Your task to perform on an android device: uninstall "Skype" Image 0: 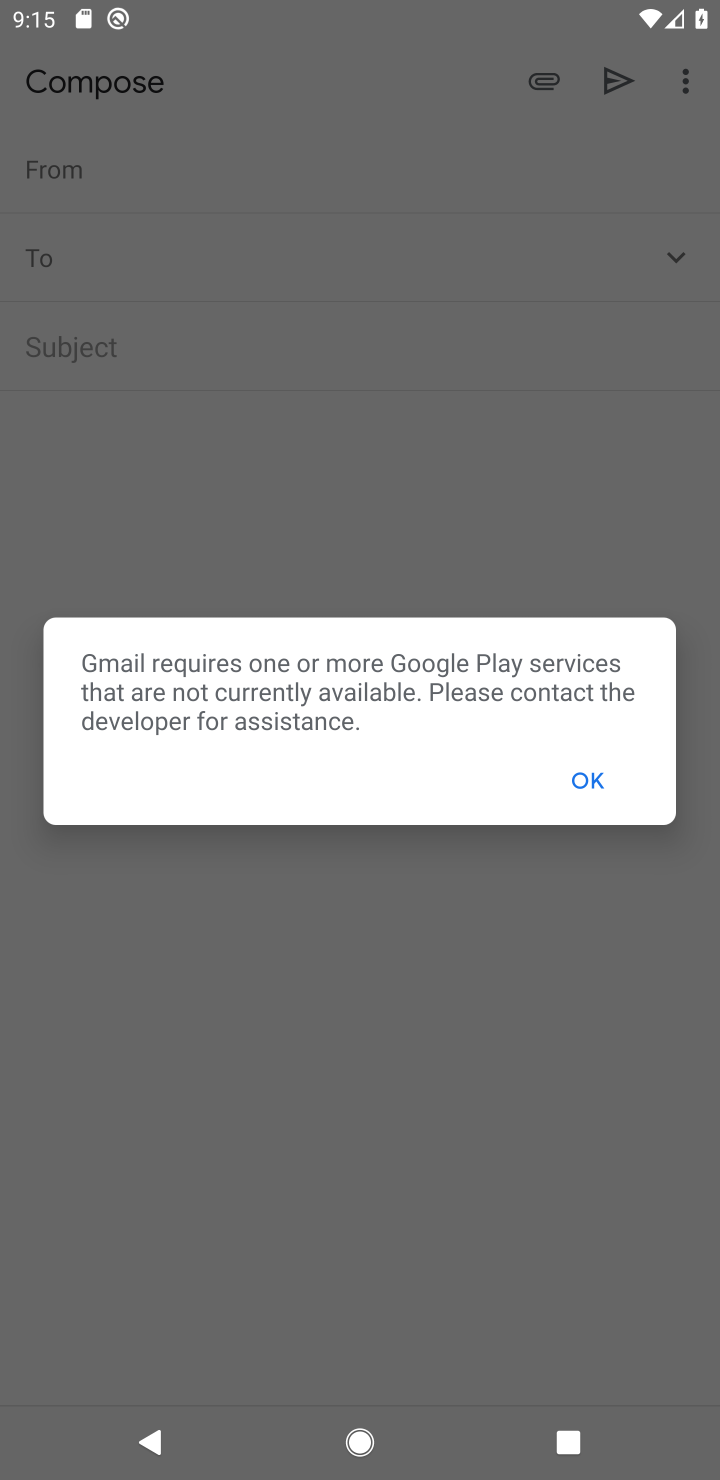
Step 0: press home button
Your task to perform on an android device: uninstall "Skype" Image 1: 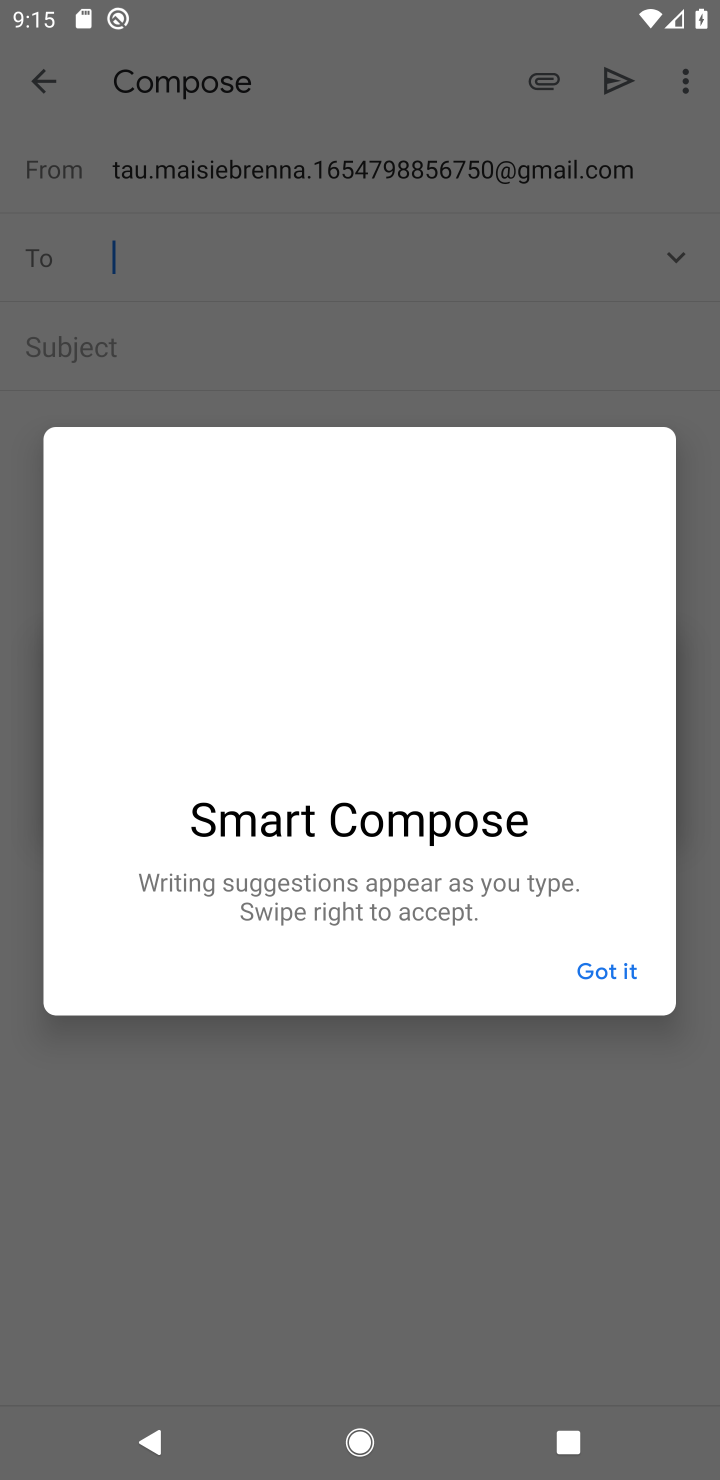
Step 1: press home button
Your task to perform on an android device: uninstall "Skype" Image 2: 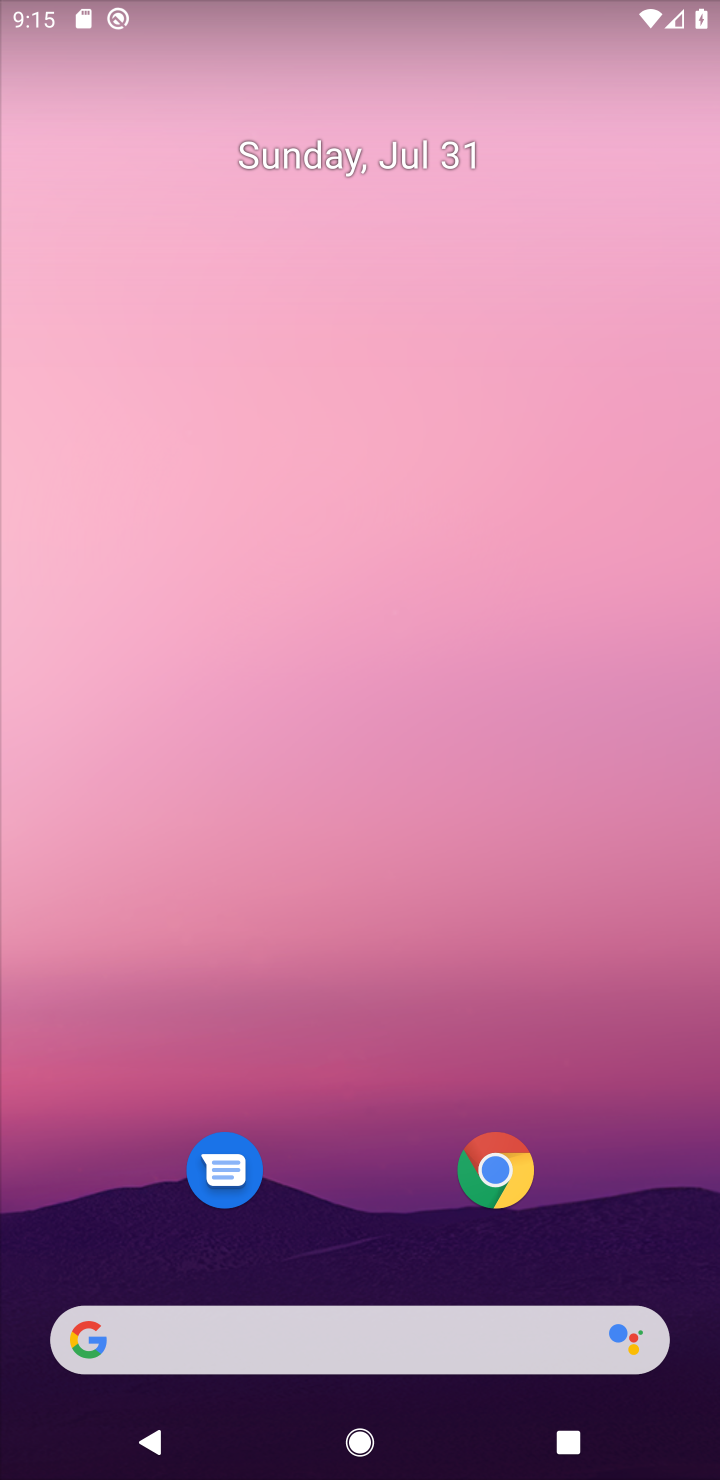
Step 2: drag from (673, 1242) to (244, 139)
Your task to perform on an android device: uninstall "Skype" Image 3: 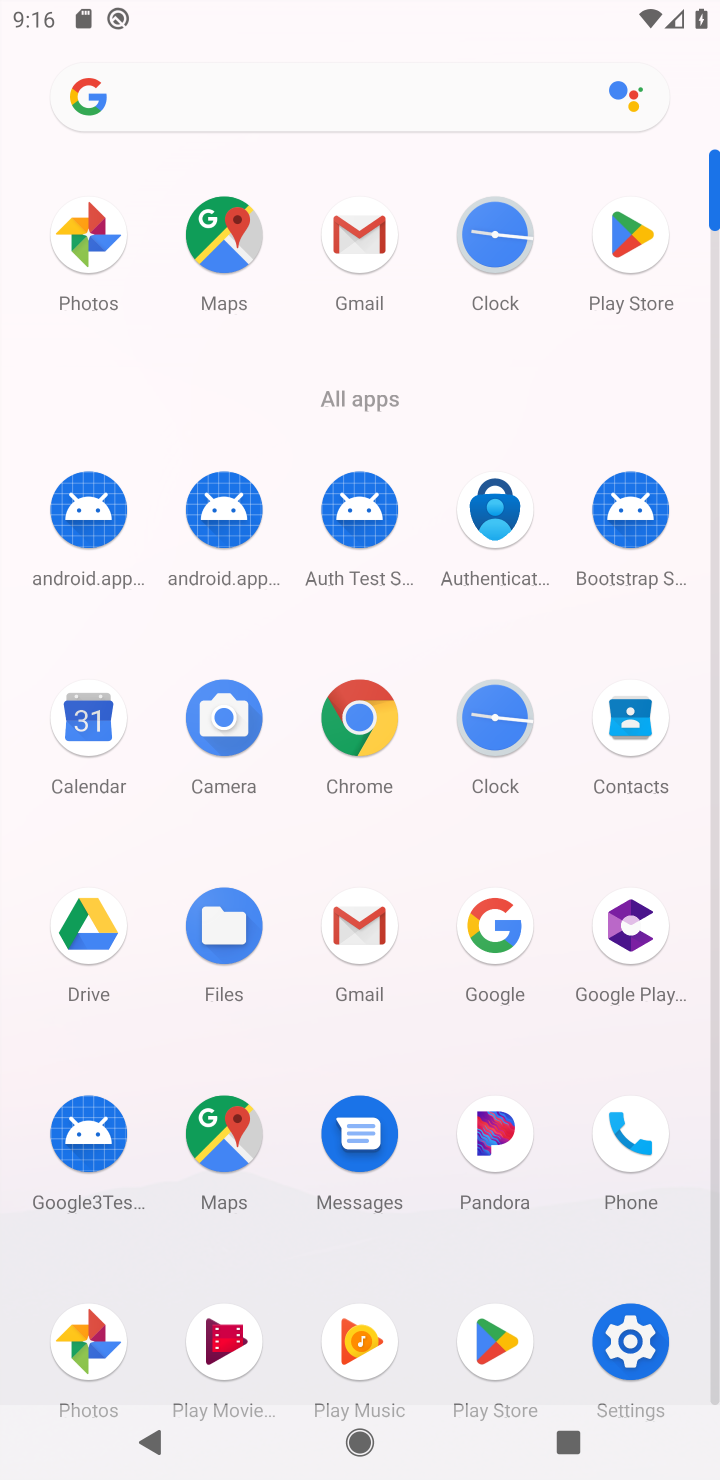
Step 3: click (617, 266)
Your task to perform on an android device: uninstall "Skype" Image 4: 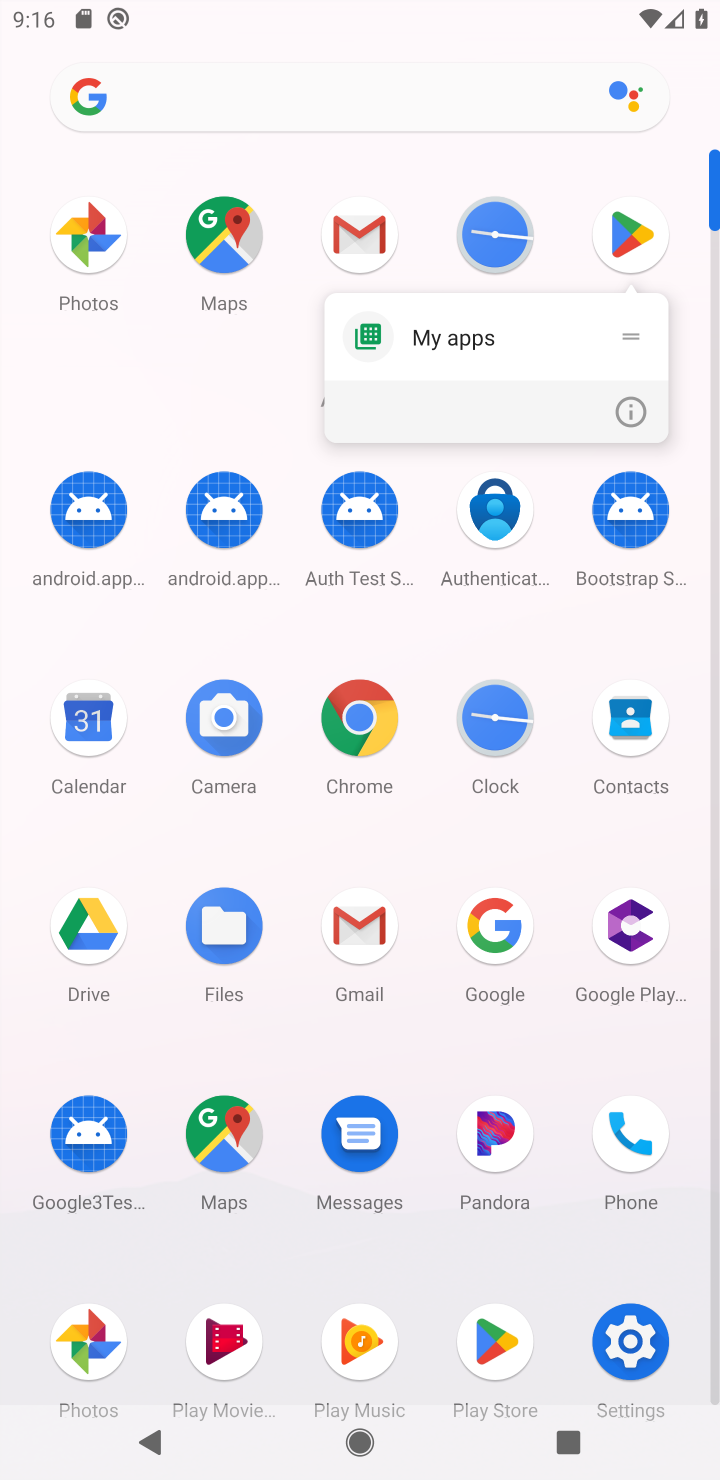
Step 4: click (617, 266)
Your task to perform on an android device: uninstall "Skype" Image 5: 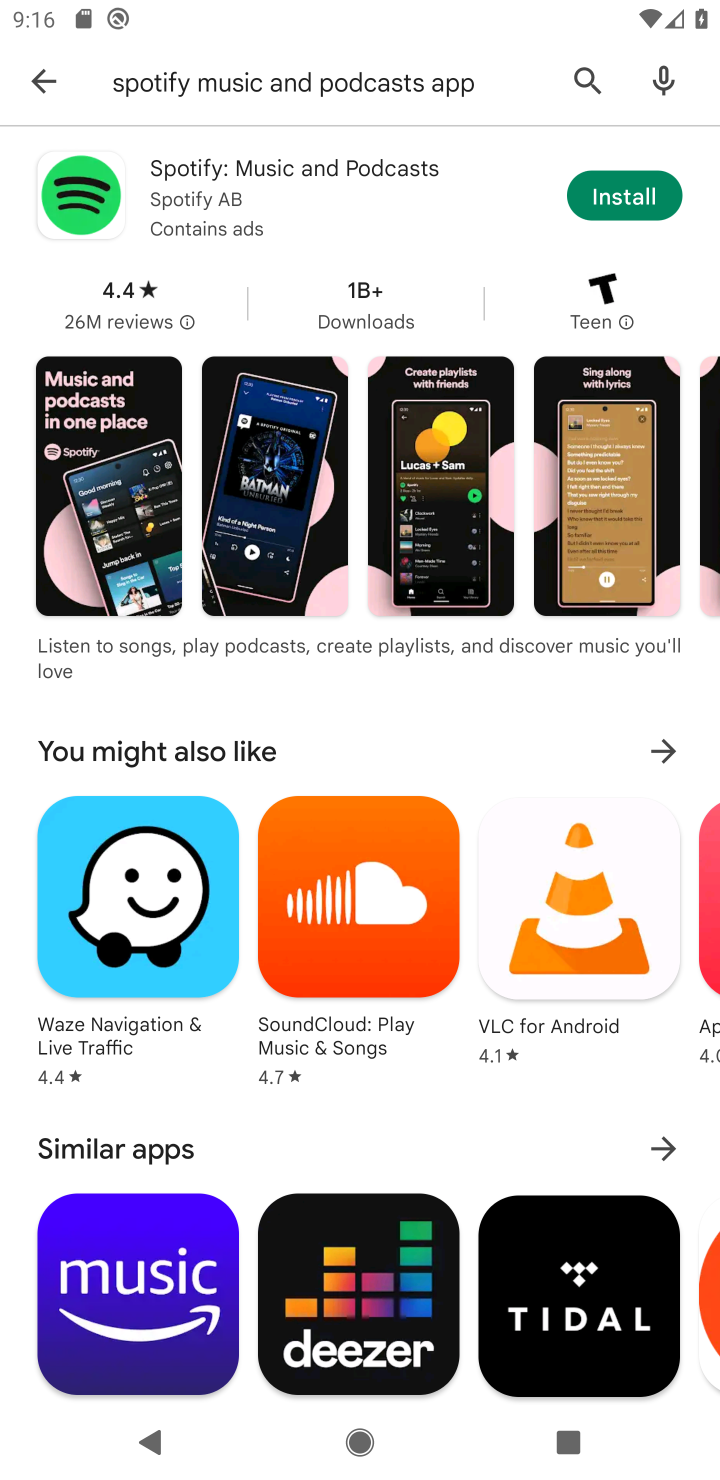
Step 5: press back button
Your task to perform on an android device: uninstall "Skype" Image 6: 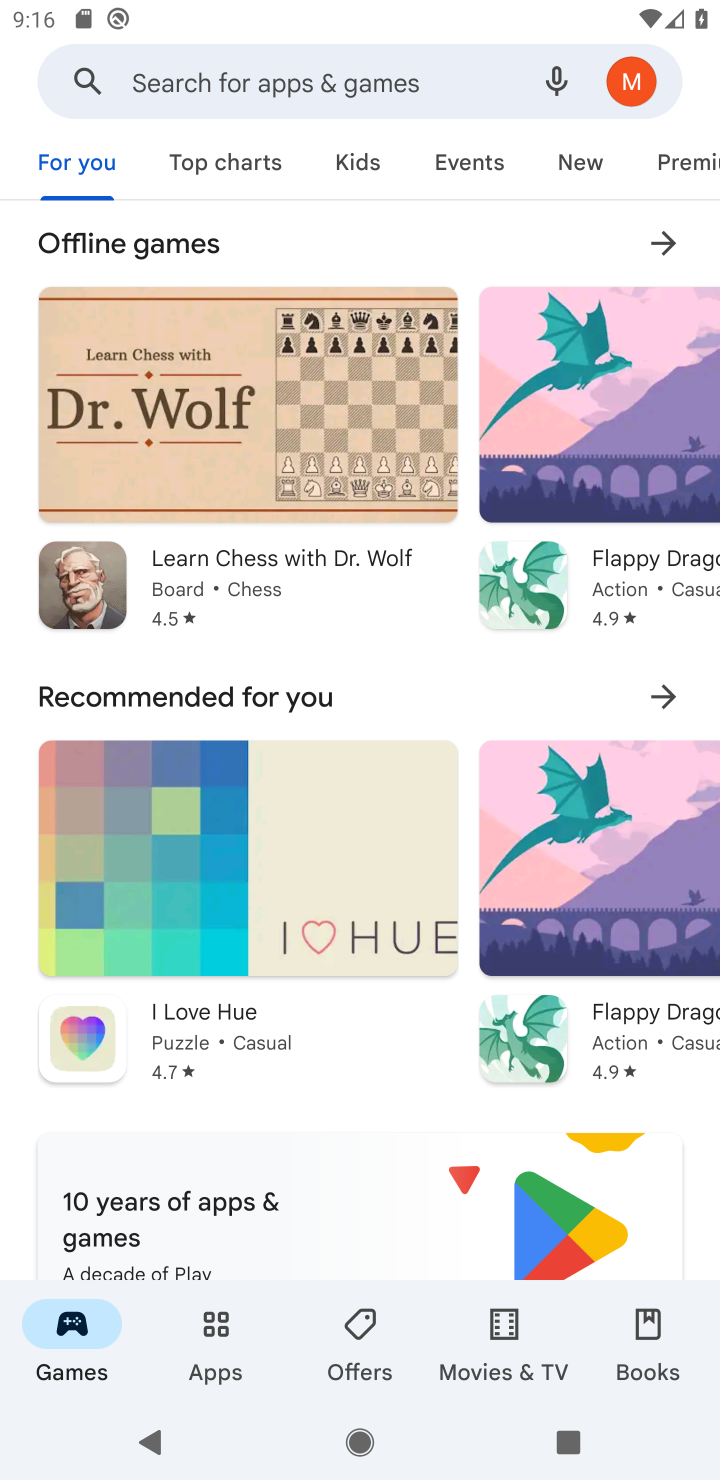
Step 6: click (166, 93)
Your task to perform on an android device: uninstall "Skype" Image 7: 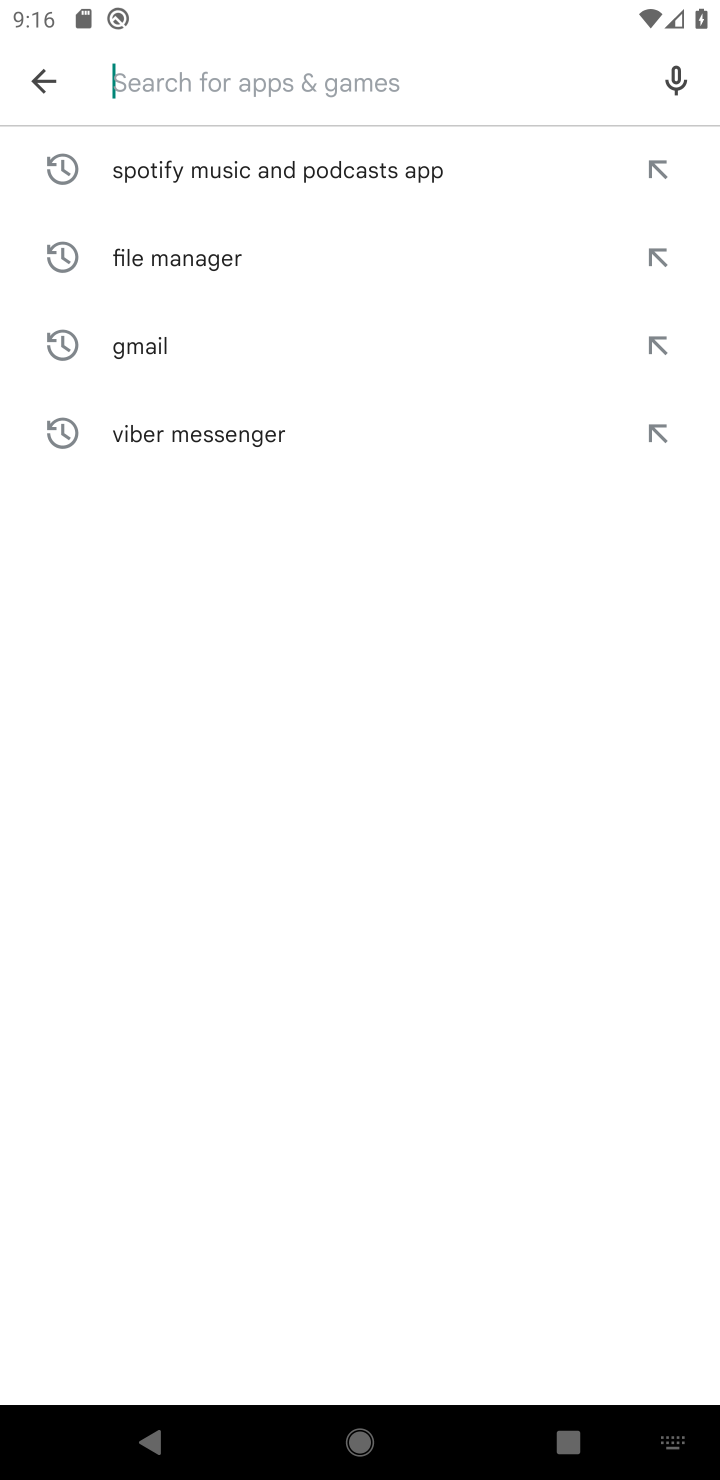
Step 7: type "Skype"
Your task to perform on an android device: uninstall "Skype" Image 8: 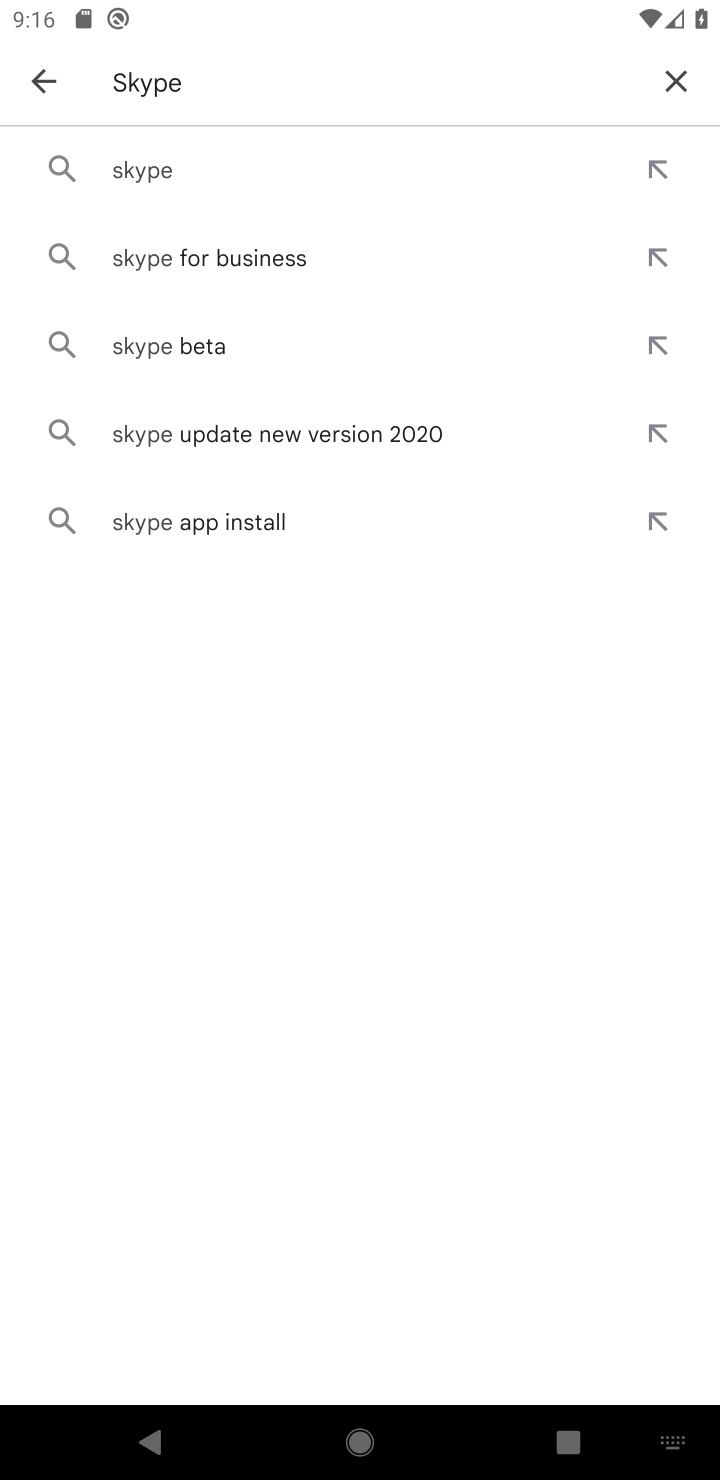
Step 8: click (197, 150)
Your task to perform on an android device: uninstall "Skype" Image 9: 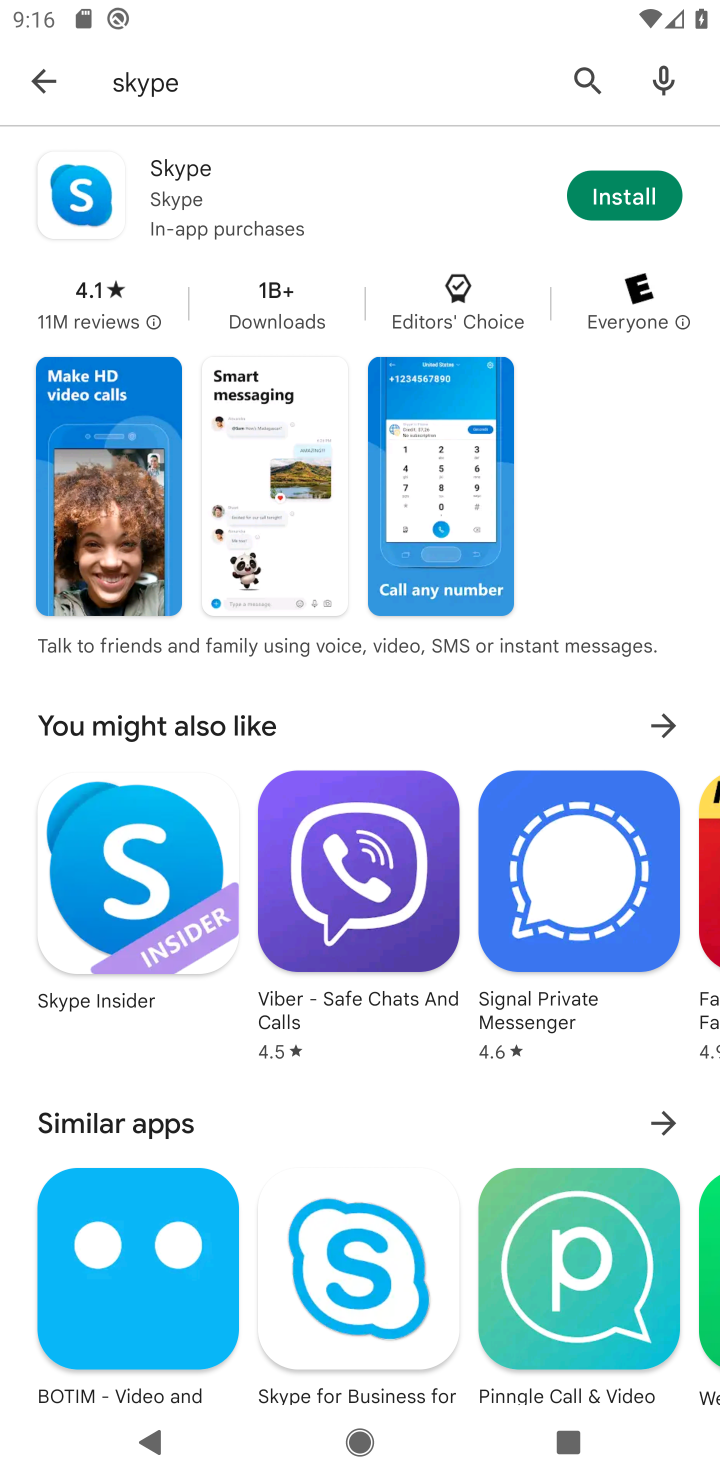
Step 9: task complete